Your task to perform on an android device: clear all cookies in the chrome app Image 0: 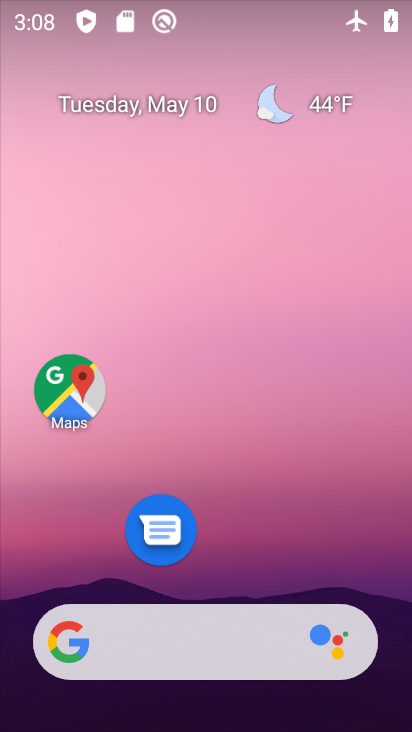
Step 0: drag from (258, 556) to (301, 87)
Your task to perform on an android device: clear all cookies in the chrome app Image 1: 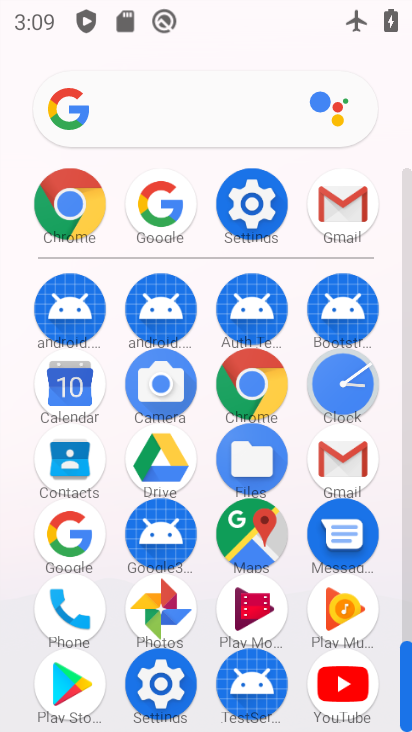
Step 1: click (254, 379)
Your task to perform on an android device: clear all cookies in the chrome app Image 2: 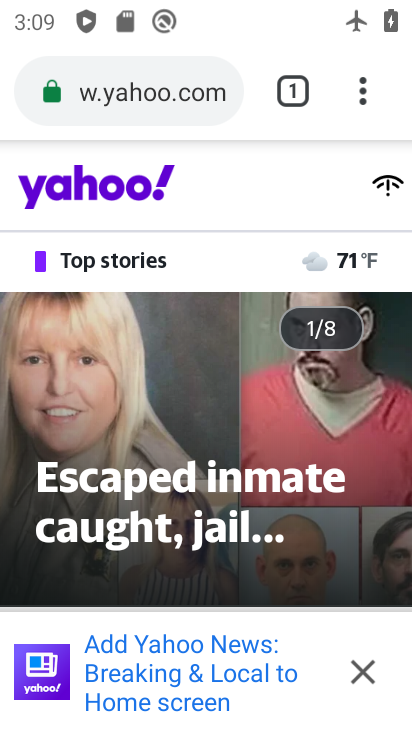
Step 2: click (350, 89)
Your task to perform on an android device: clear all cookies in the chrome app Image 3: 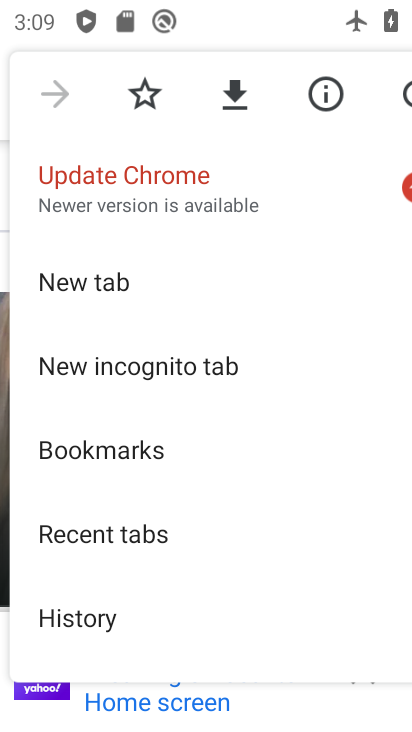
Step 3: drag from (308, 546) to (255, 59)
Your task to perform on an android device: clear all cookies in the chrome app Image 4: 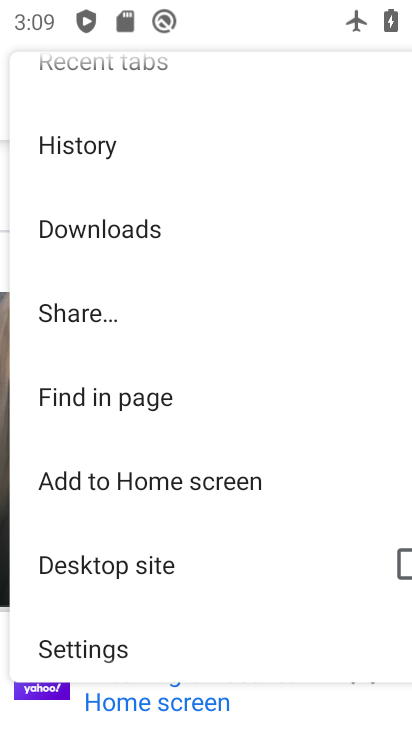
Step 4: drag from (217, 614) to (203, 267)
Your task to perform on an android device: clear all cookies in the chrome app Image 5: 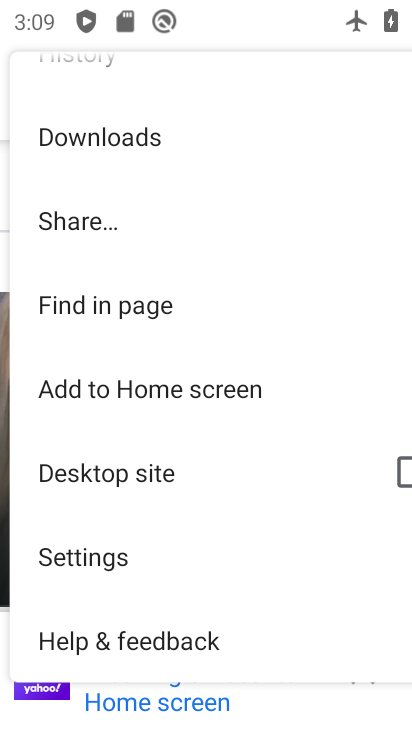
Step 5: click (128, 549)
Your task to perform on an android device: clear all cookies in the chrome app Image 6: 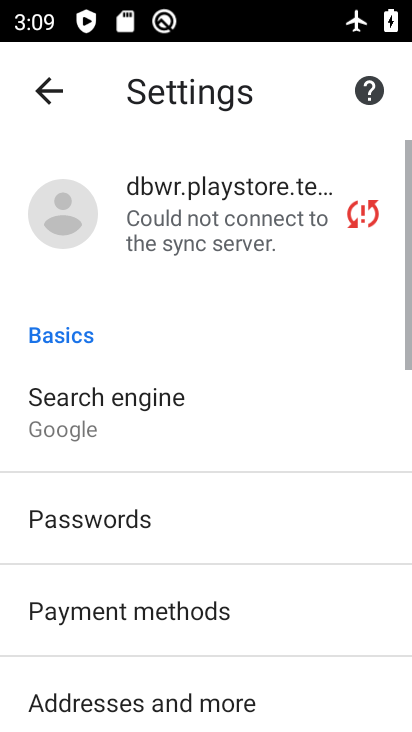
Step 6: drag from (185, 551) to (205, 0)
Your task to perform on an android device: clear all cookies in the chrome app Image 7: 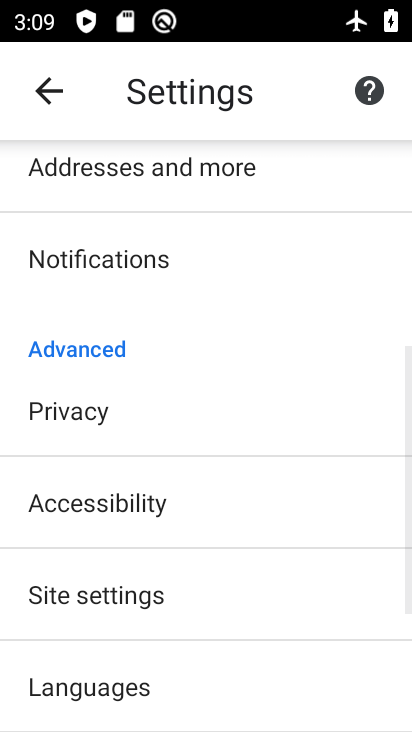
Step 7: drag from (180, 591) to (190, 328)
Your task to perform on an android device: clear all cookies in the chrome app Image 8: 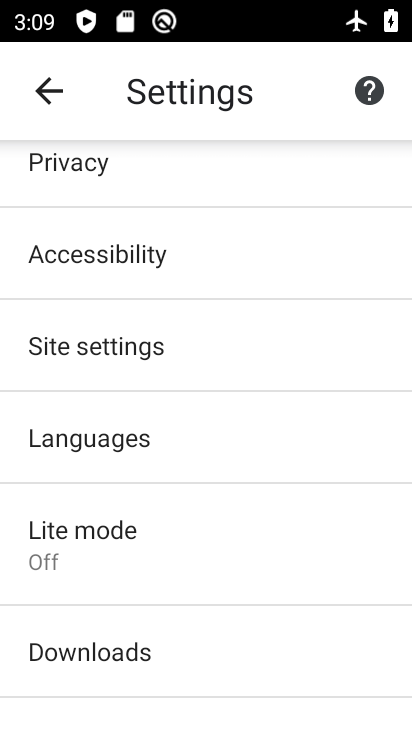
Step 8: drag from (155, 621) to (170, 564)
Your task to perform on an android device: clear all cookies in the chrome app Image 9: 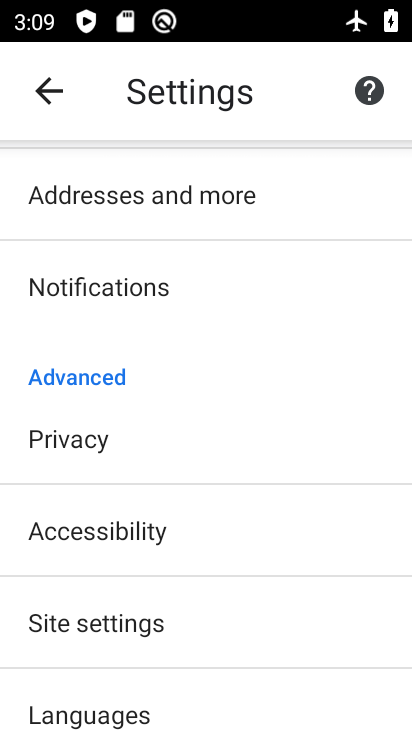
Step 9: click (83, 436)
Your task to perform on an android device: clear all cookies in the chrome app Image 10: 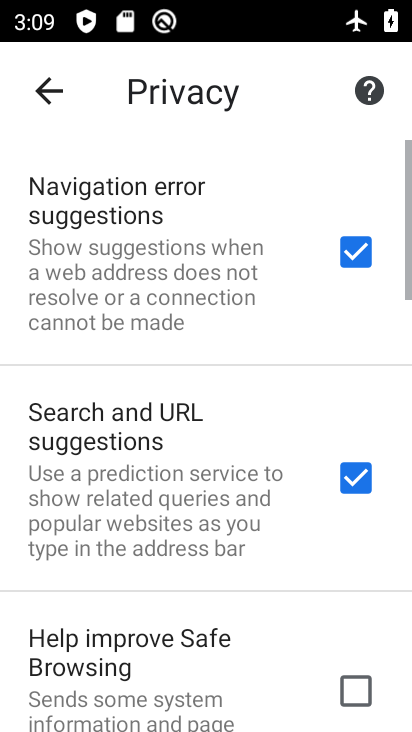
Step 10: drag from (162, 536) to (123, 79)
Your task to perform on an android device: clear all cookies in the chrome app Image 11: 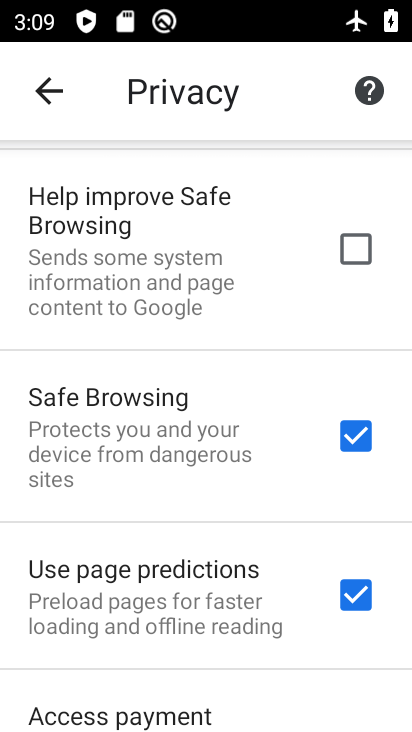
Step 11: drag from (216, 623) to (260, 100)
Your task to perform on an android device: clear all cookies in the chrome app Image 12: 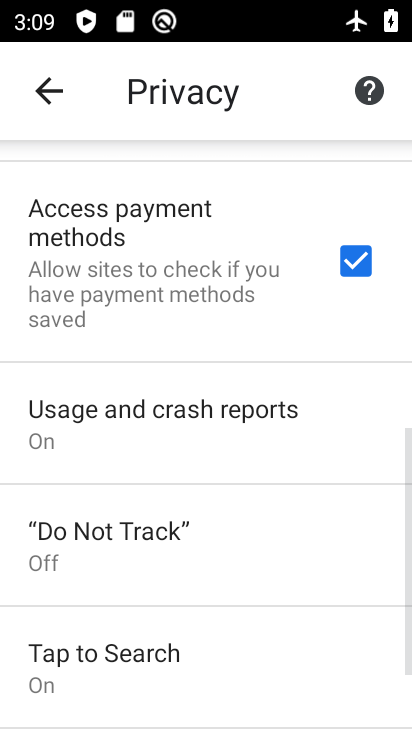
Step 12: drag from (205, 671) to (245, 103)
Your task to perform on an android device: clear all cookies in the chrome app Image 13: 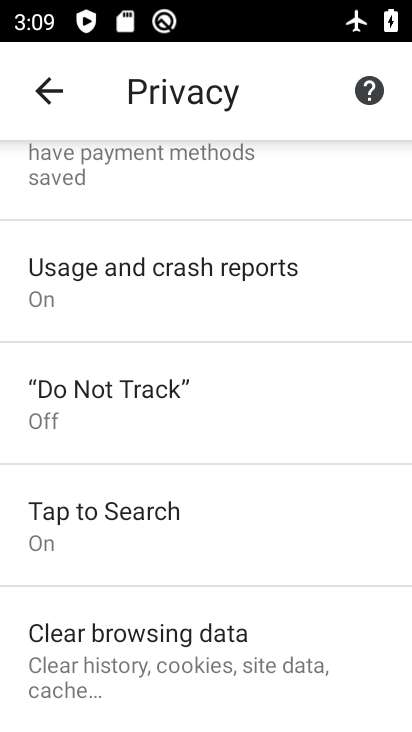
Step 13: click (121, 669)
Your task to perform on an android device: clear all cookies in the chrome app Image 14: 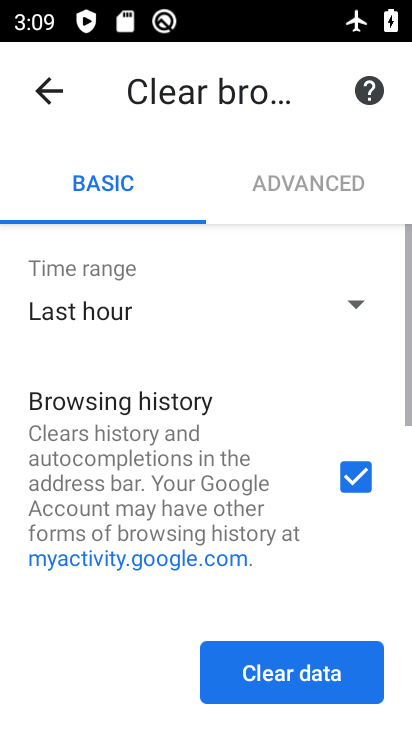
Step 14: drag from (334, 509) to (317, 206)
Your task to perform on an android device: clear all cookies in the chrome app Image 15: 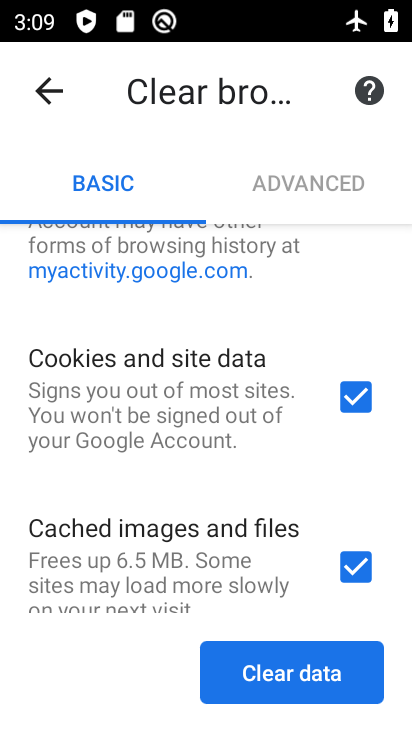
Step 15: click (358, 579)
Your task to perform on an android device: clear all cookies in the chrome app Image 16: 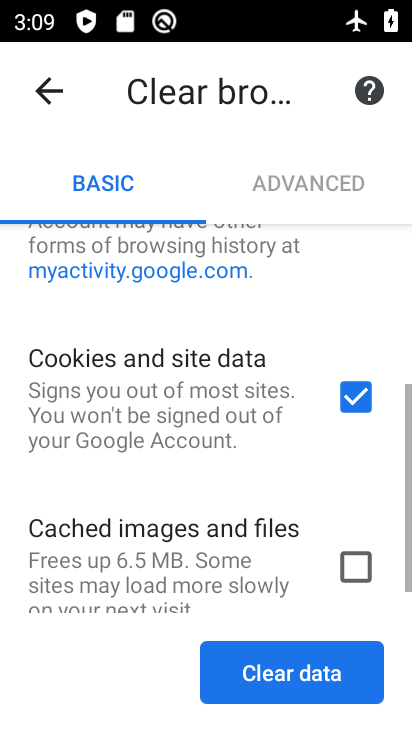
Step 16: drag from (256, 381) to (269, 532)
Your task to perform on an android device: clear all cookies in the chrome app Image 17: 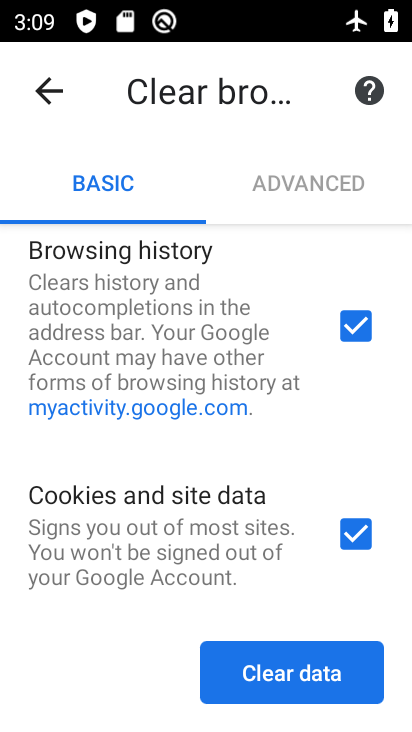
Step 17: click (362, 322)
Your task to perform on an android device: clear all cookies in the chrome app Image 18: 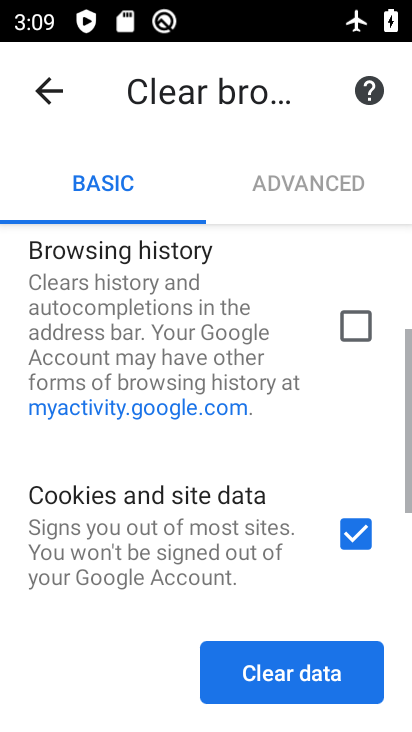
Step 18: click (283, 686)
Your task to perform on an android device: clear all cookies in the chrome app Image 19: 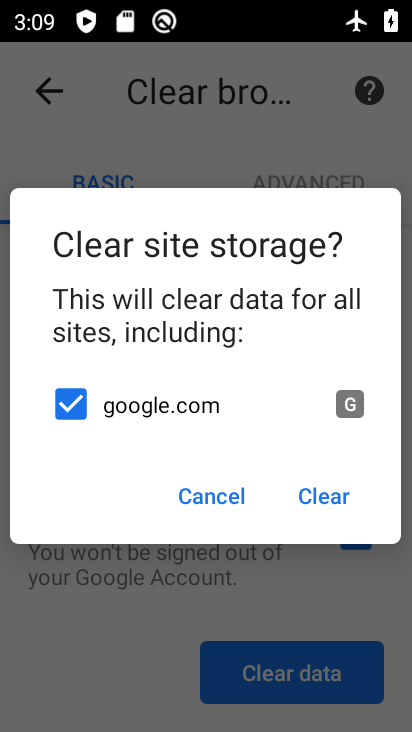
Step 19: task complete